Your task to perform on an android device: What's the weather going to be tomorrow? Image 0: 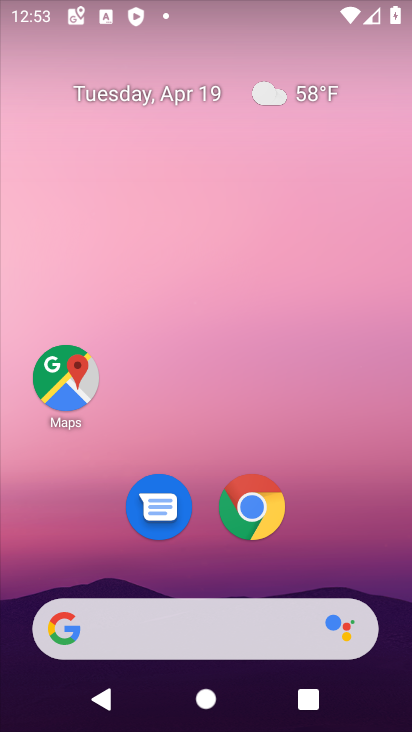
Step 0: drag from (202, 581) to (172, 651)
Your task to perform on an android device: What's the weather going to be tomorrow? Image 1: 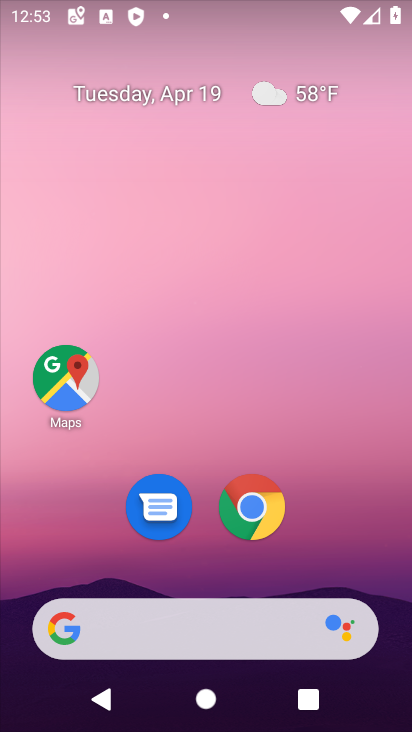
Step 1: click (292, 90)
Your task to perform on an android device: What's the weather going to be tomorrow? Image 2: 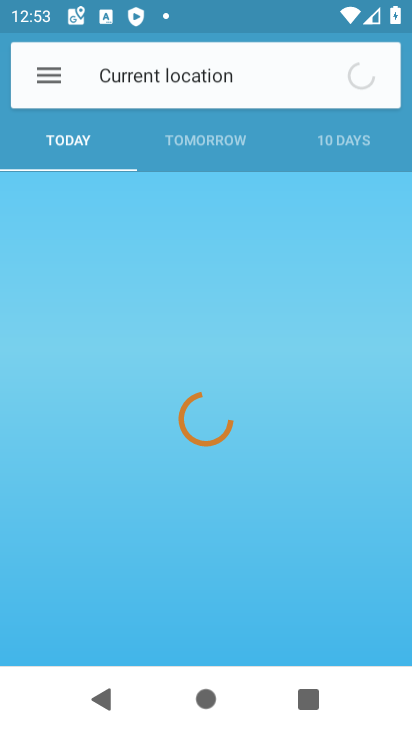
Step 2: click (306, 83)
Your task to perform on an android device: What's the weather going to be tomorrow? Image 3: 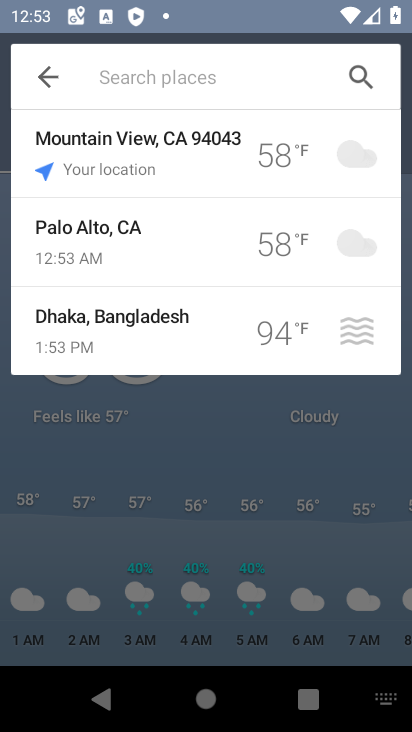
Step 3: click (41, 79)
Your task to perform on an android device: What's the weather going to be tomorrow? Image 4: 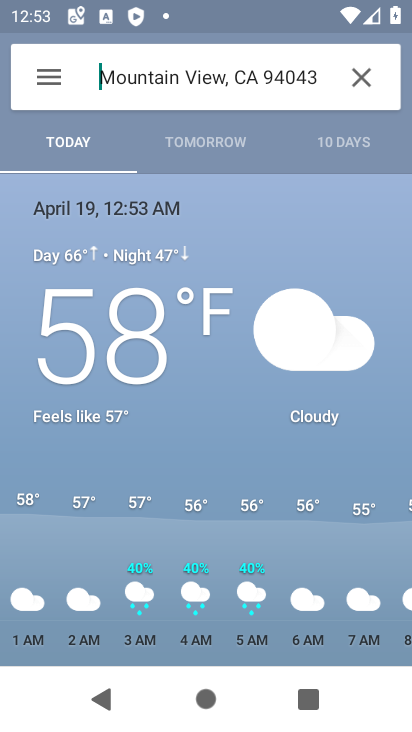
Step 4: click (199, 130)
Your task to perform on an android device: What's the weather going to be tomorrow? Image 5: 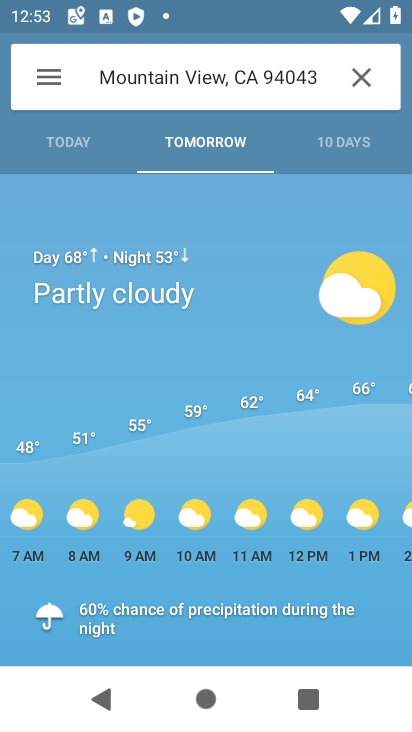
Step 5: task complete